Your task to perform on an android device: search for accent chairs on article.com Image 0: 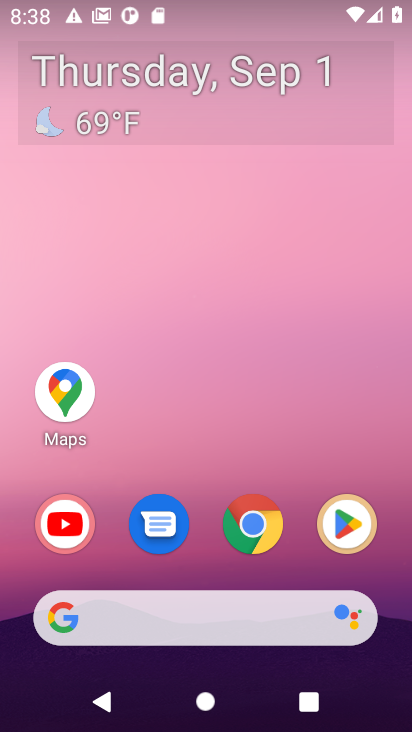
Step 0: click (254, 529)
Your task to perform on an android device: search for accent chairs on article.com Image 1: 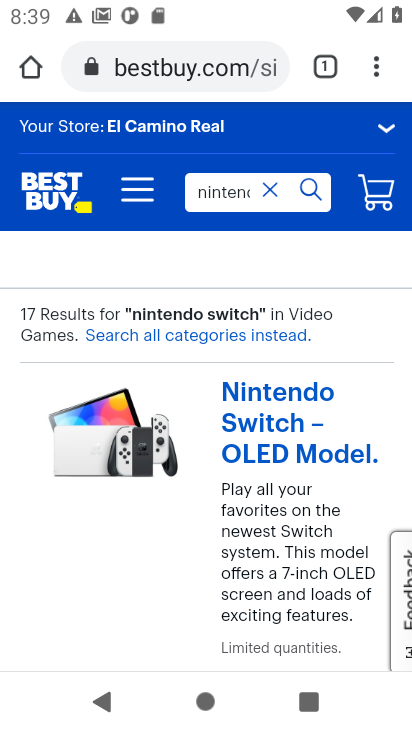
Step 1: drag from (246, 532) to (345, 715)
Your task to perform on an android device: search for accent chairs on article.com Image 2: 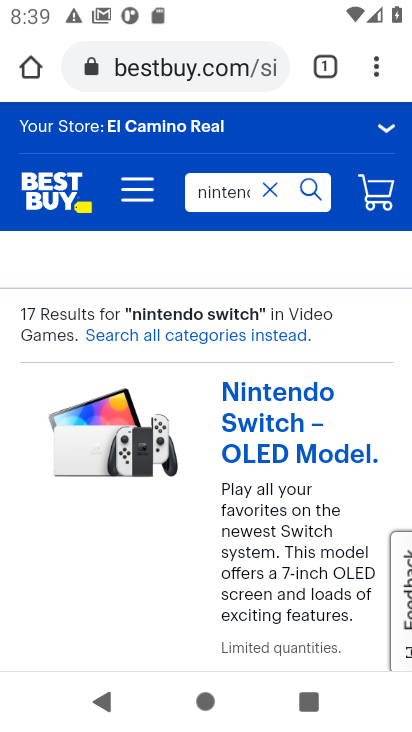
Step 2: click (209, 76)
Your task to perform on an android device: search for accent chairs on article.com Image 3: 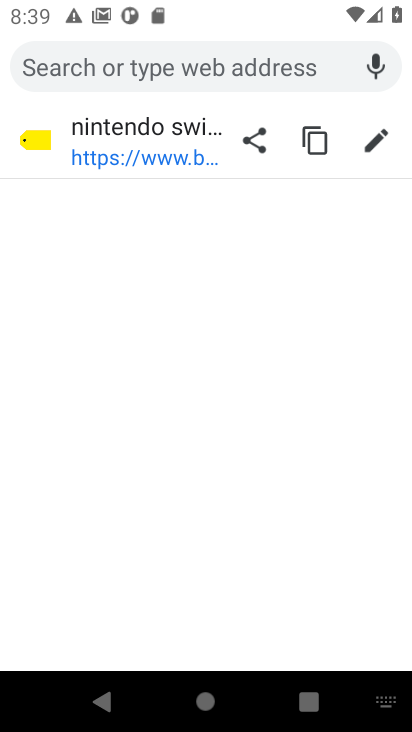
Step 3: type "article.com"
Your task to perform on an android device: search for accent chairs on article.com Image 4: 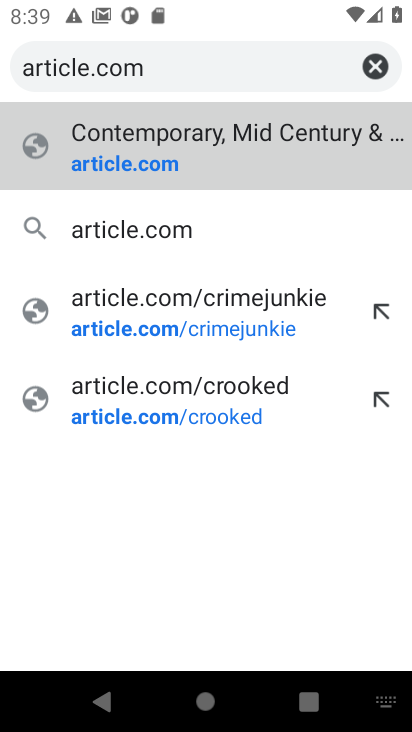
Step 4: click (231, 168)
Your task to perform on an android device: search for accent chairs on article.com Image 5: 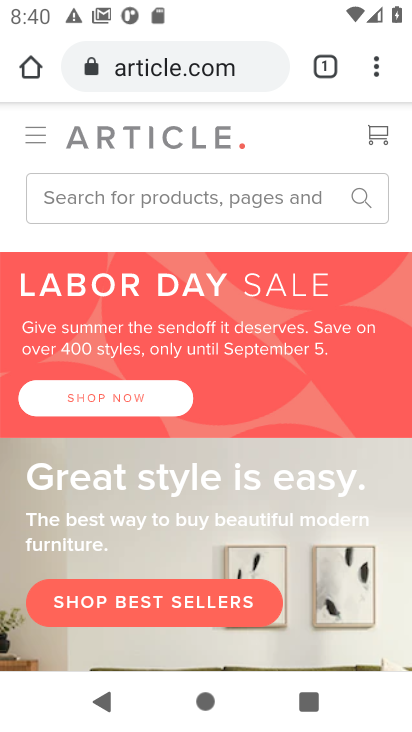
Step 5: click (239, 205)
Your task to perform on an android device: search for accent chairs on article.com Image 6: 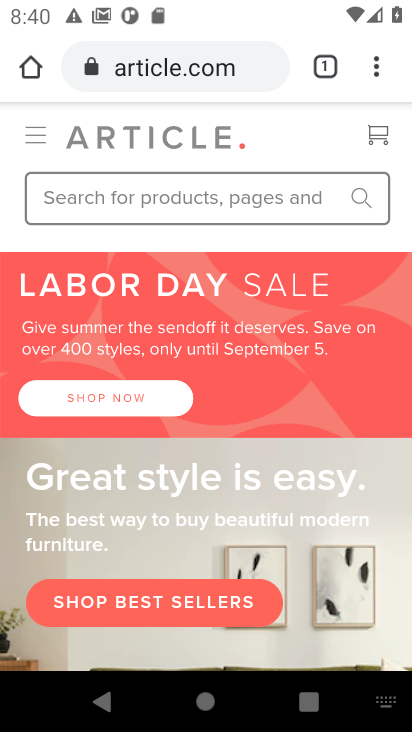
Step 6: type "accent chairs"
Your task to perform on an android device: search for accent chairs on article.com Image 7: 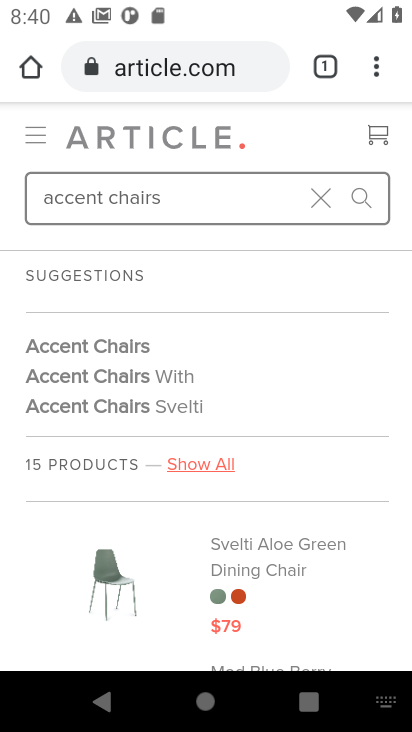
Step 7: press enter
Your task to perform on an android device: search for accent chairs on article.com Image 8: 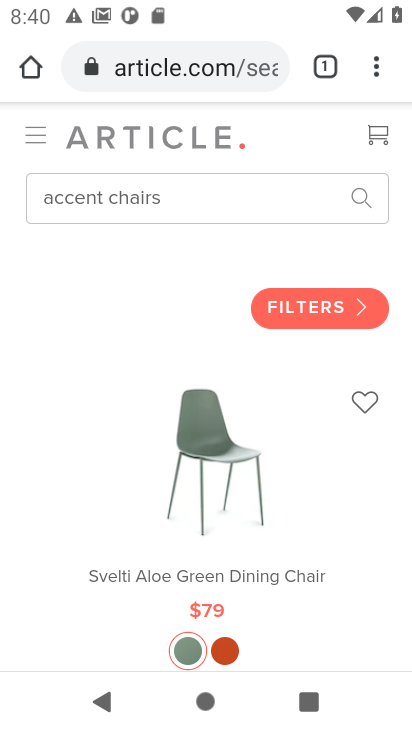
Step 8: task complete